Your task to perform on an android device: read, delete, or share a saved page in the chrome app Image 0: 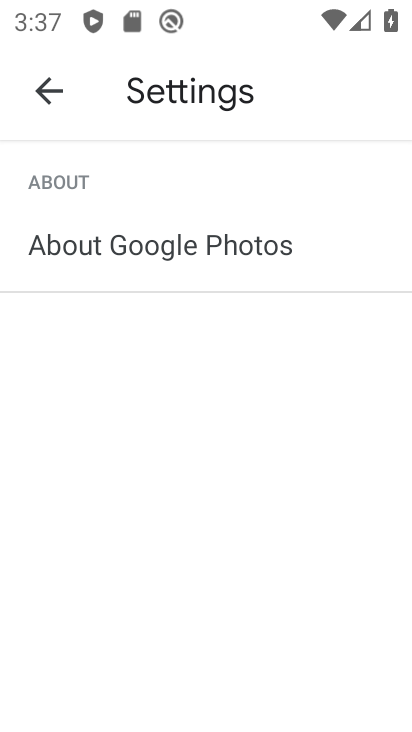
Step 0: press home button
Your task to perform on an android device: read, delete, or share a saved page in the chrome app Image 1: 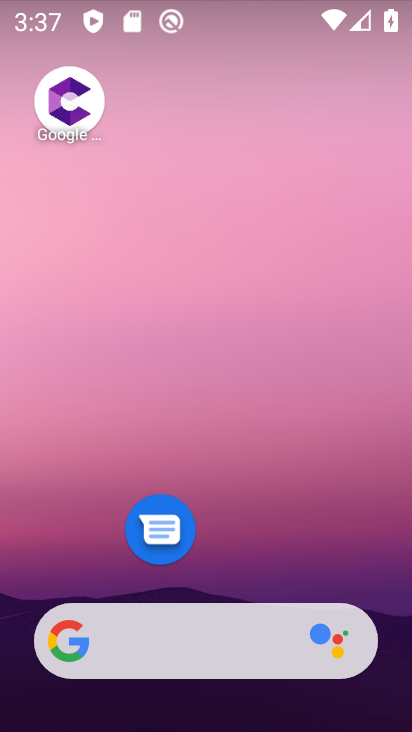
Step 1: drag from (224, 568) to (224, 148)
Your task to perform on an android device: read, delete, or share a saved page in the chrome app Image 2: 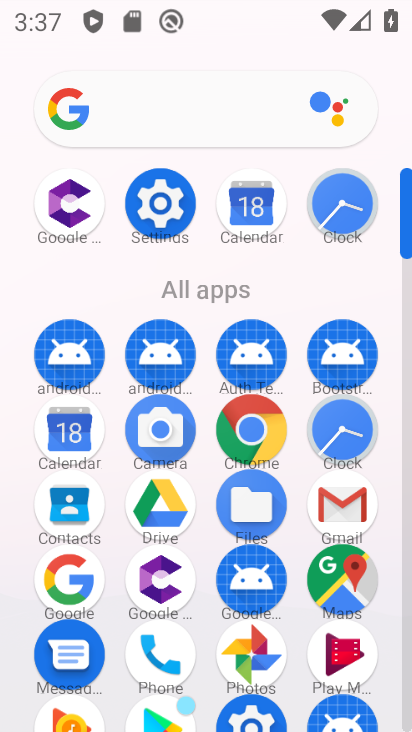
Step 2: click (257, 428)
Your task to perform on an android device: read, delete, or share a saved page in the chrome app Image 3: 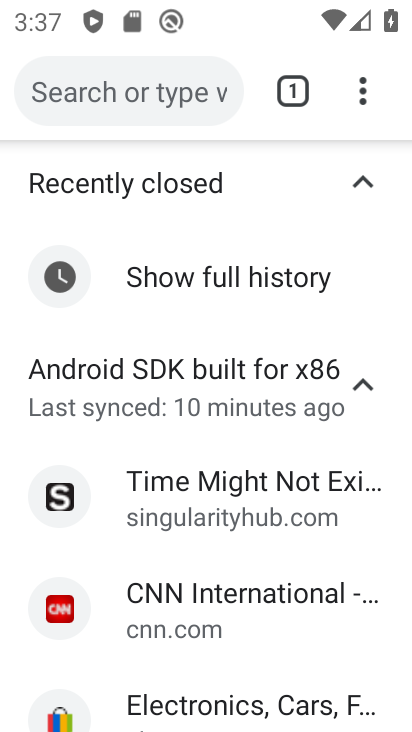
Step 3: click (355, 84)
Your task to perform on an android device: read, delete, or share a saved page in the chrome app Image 4: 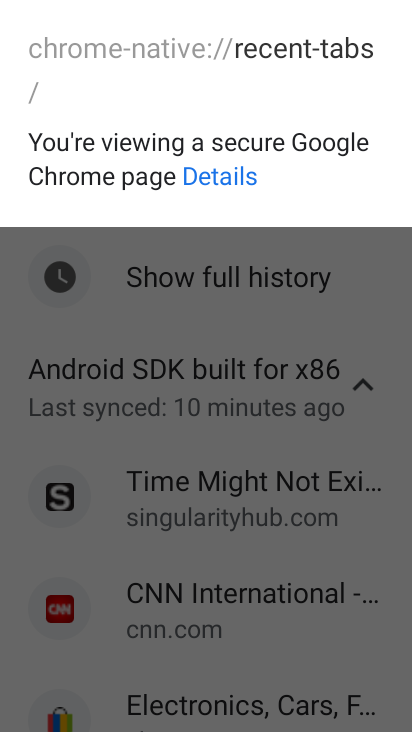
Step 4: click (283, 321)
Your task to perform on an android device: read, delete, or share a saved page in the chrome app Image 5: 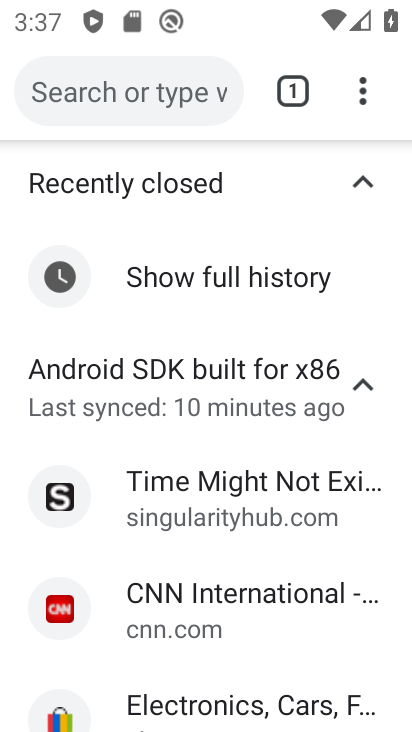
Step 5: click (361, 78)
Your task to perform on an android device: read, delete, or share a saved page in the chrome app Image 6: 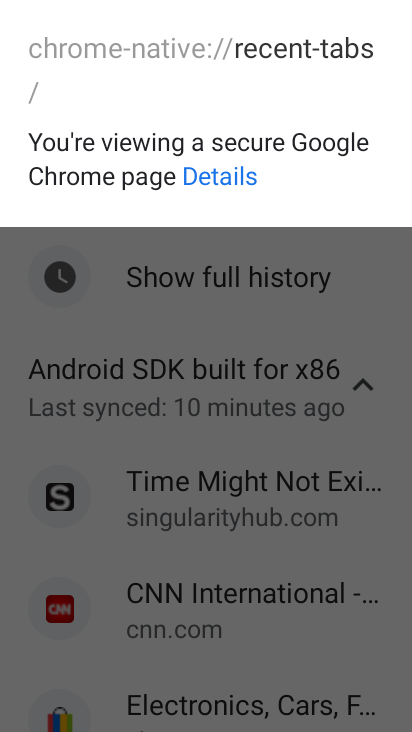
Step 6: click (346, 247)
Your task to perform on an android device: read, delete, or share a saved page in the chrome app Image 7: 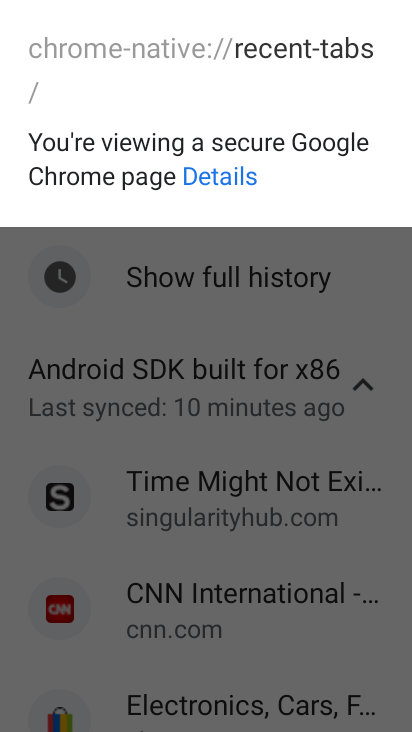
Step 7: click (332, 343)
Your task to perform on an android device: read, delete, or share a saved page in the chrome app Image 8: 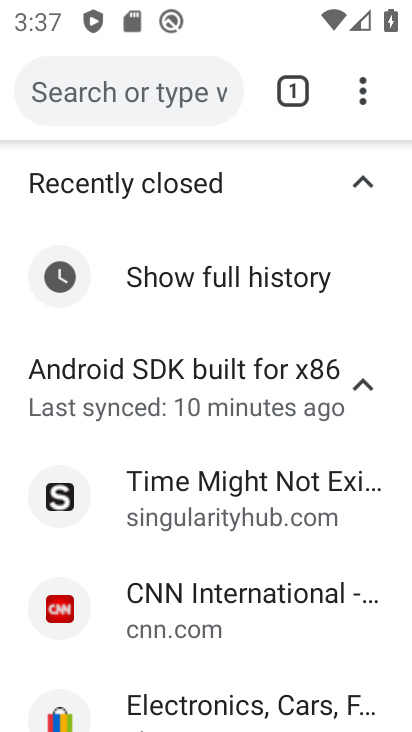
Step 8: click (365, 85)
Your task to perform on an android device: read, delete, or share a saved page in the chrome app Image 9: 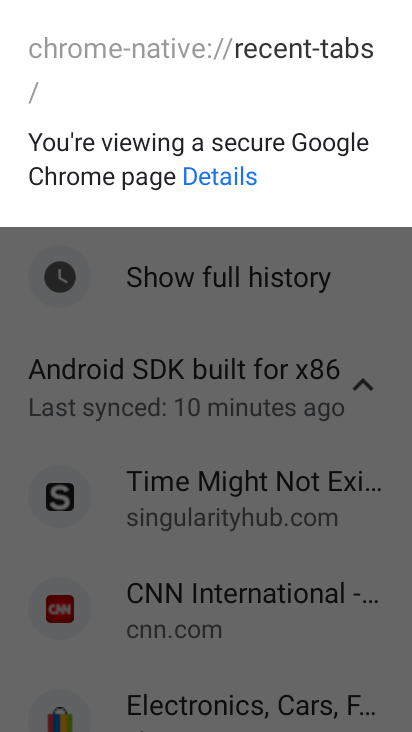
Step 9: click (298, 333)
Your task to perform on an android device: read, delete, or share a saved page in the chrome app Image 10: 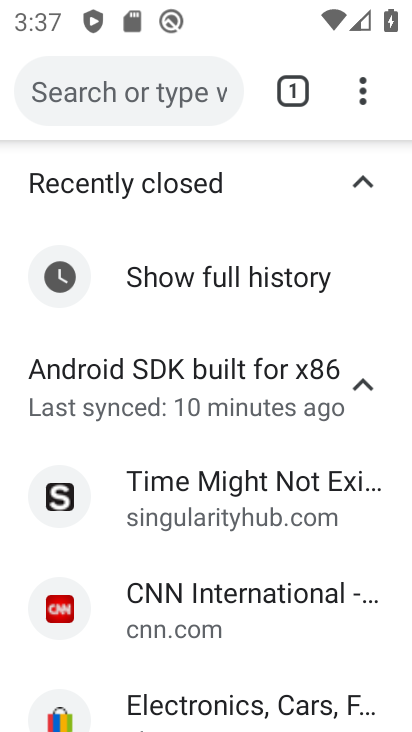
Step 10: click (358, 91)
Your task to perform on an android device: read, delete, or share a saved page in the chrome app Image 11: 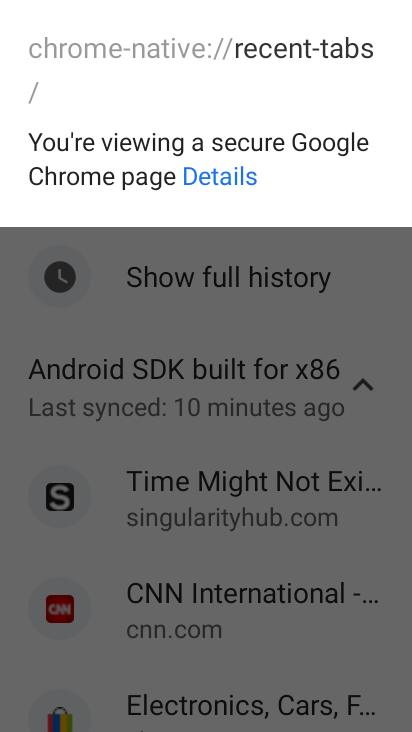
Step 11: click (360, 257)
Your task to perform on an android device: read, delete, or share a saved page in the chrome app Image 12: 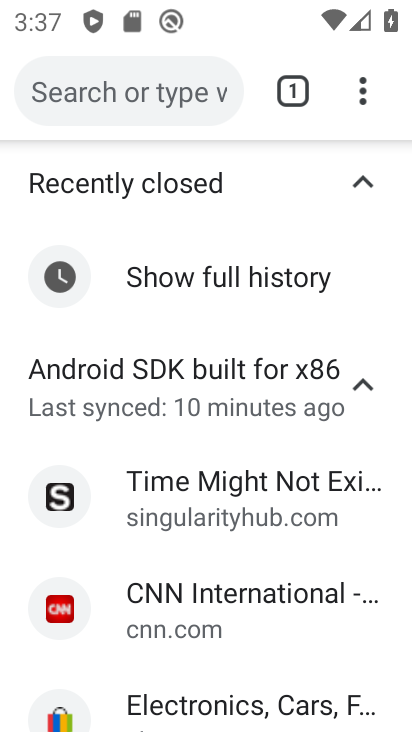
Step 12: click (360, 94)
Your task to perform on an android device: read, delete, or share a saved page in the chrome app Image 13: 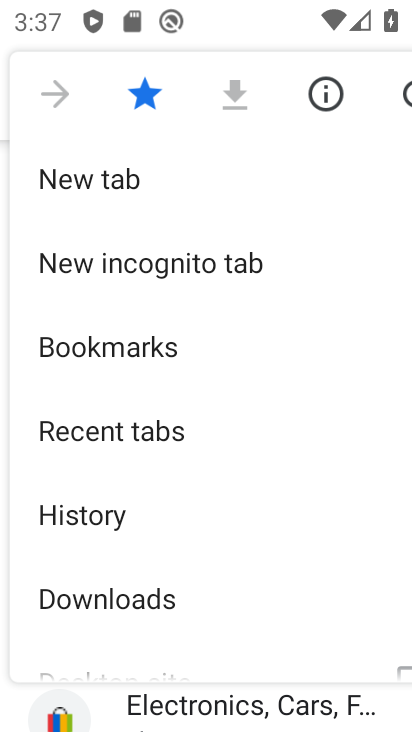
Step 13: click (142, 583)
Your task to perform on an android device: read, delete, or share a saved page in the chrome app Image 14: 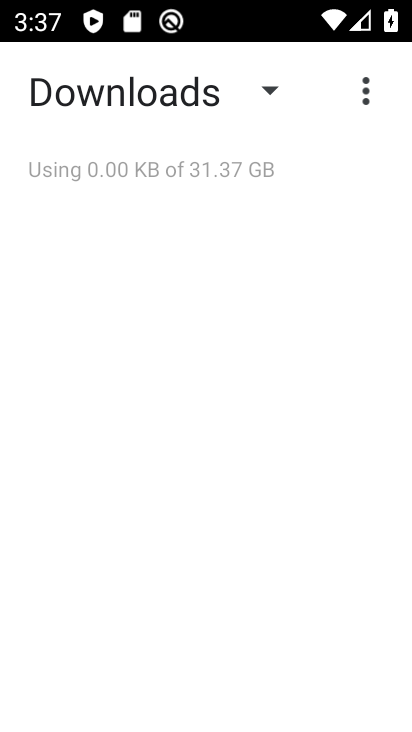
Step 14: click (266, 99)
Your task to perform on an android device: read, delete, or share a saved page in the chrome app Image 15: 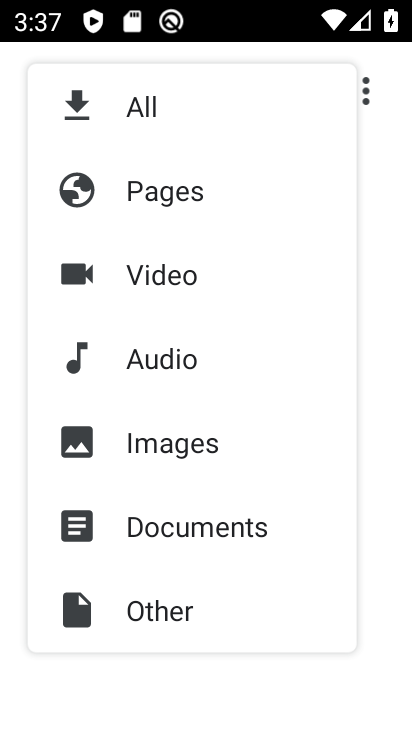
Step 15: click (156, 197)
Your task to perform on an android device: read, delete, or share a saved page in the chrome app Image 16: 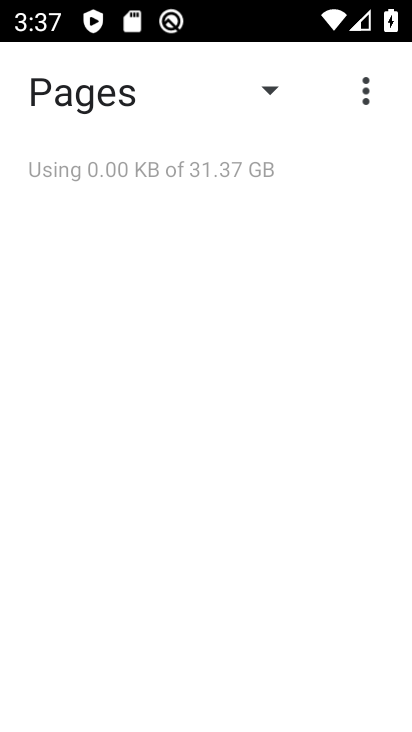
Step 16: task complete